Your task to perform on an android device: delete browsing data in the chrome app Image 0: 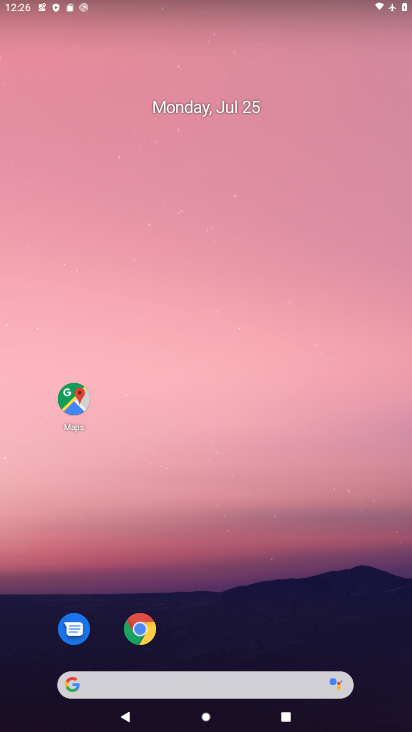
Step 0: click (142, 617)
Your task to perform on an android device: delete browsing data in the chrome app Image 1: 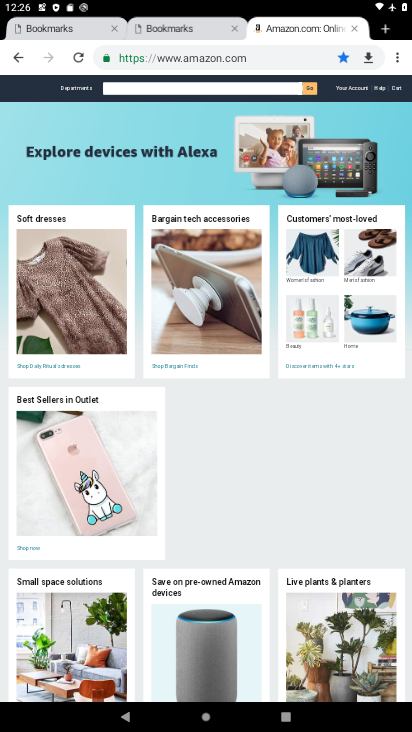
Step 1: click (394, 60)
Your task to perform on an android device: delete browsing data in the chrome app Image 2: 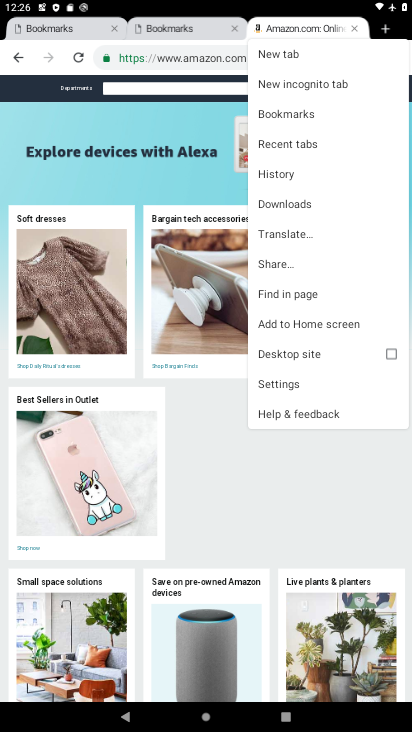
Step 2: click (279, 384)
Your task to perform on an android device: delete browsing data in the chrome app Image 3: 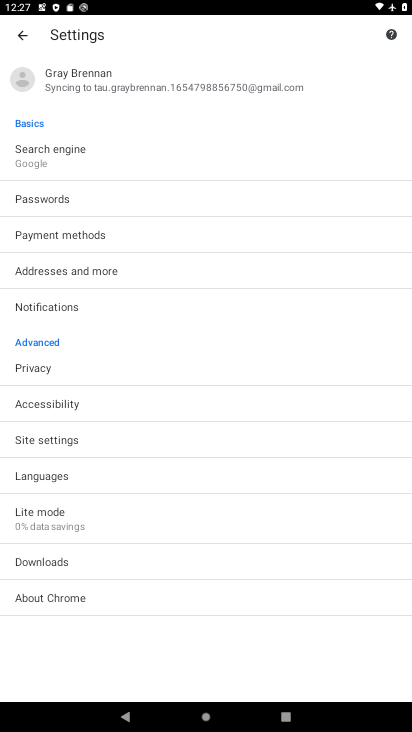
Step 3: task complete